Your task to perform on an android device: Open location settings Image 0: 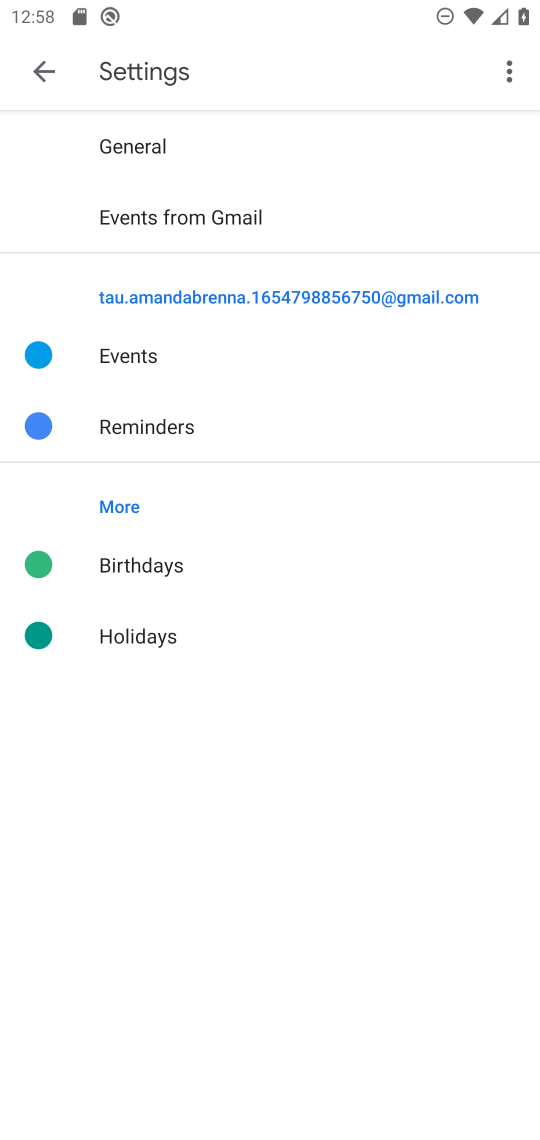
Step 0: press home button
Your task to perform on an android device: Open location settings Image 1: 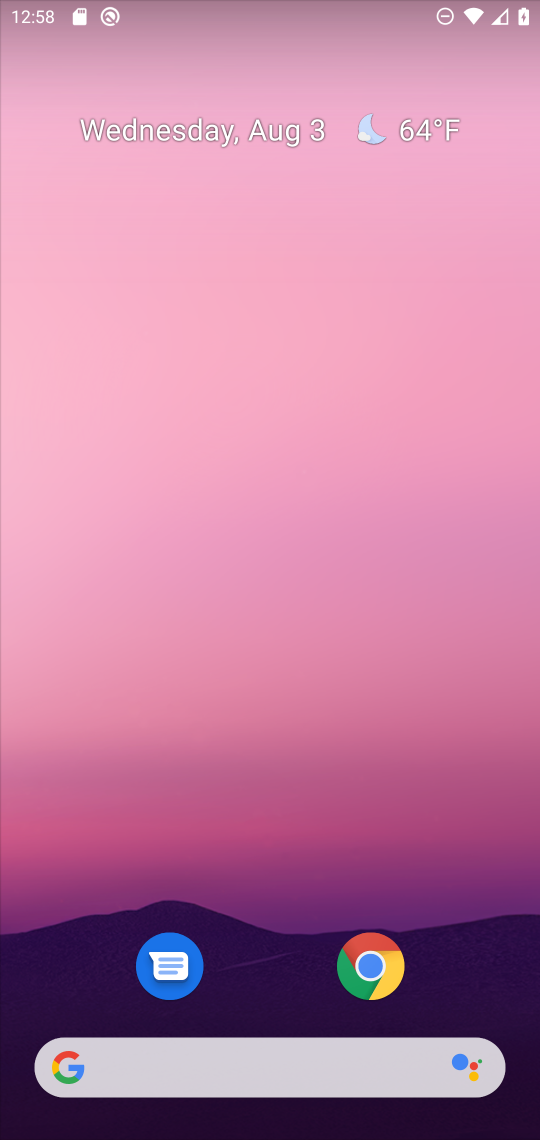
Step 1: drag from (282, 851) to (227, 72)
Your task to perform on an android device: Open location settings Image 2: 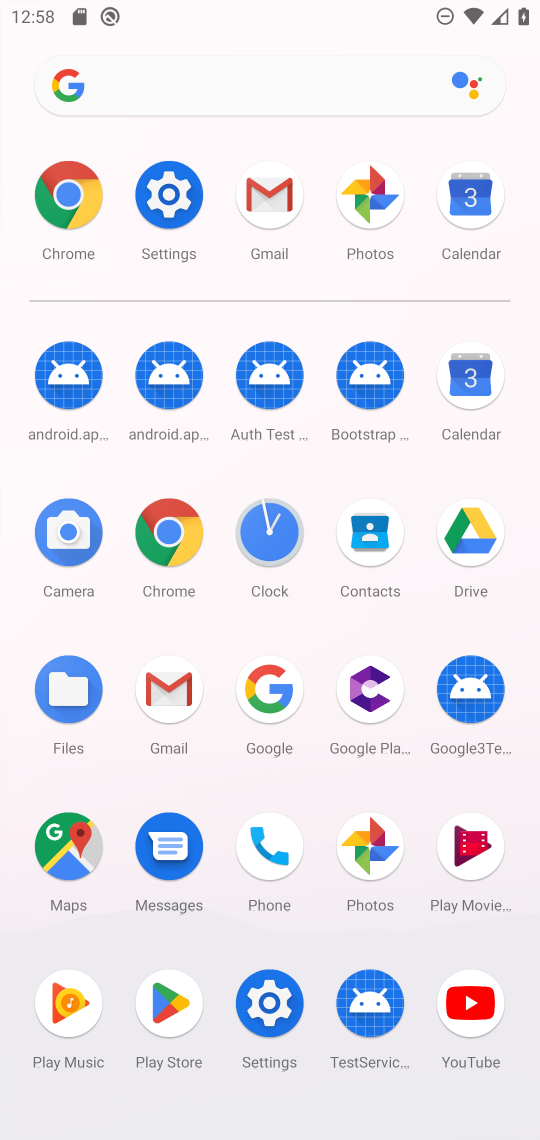
Step 2: click (149, 211)
Your task to perform on an android device: Open location settings Image 3: 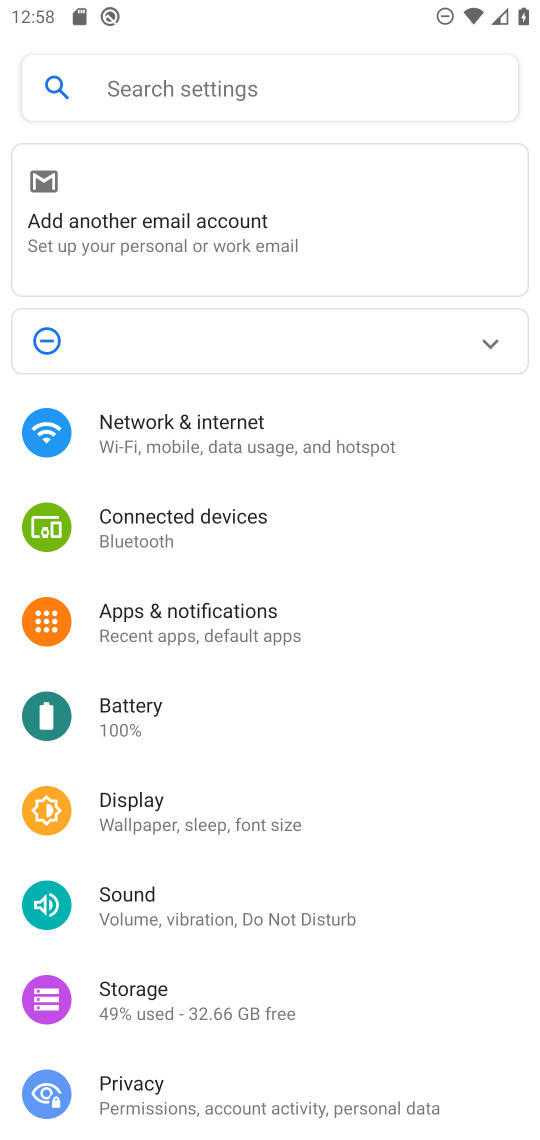
Step 3: drag from (254, 949) to (267, 455)
Your task to perform on an android device: Open location settings Image 4: 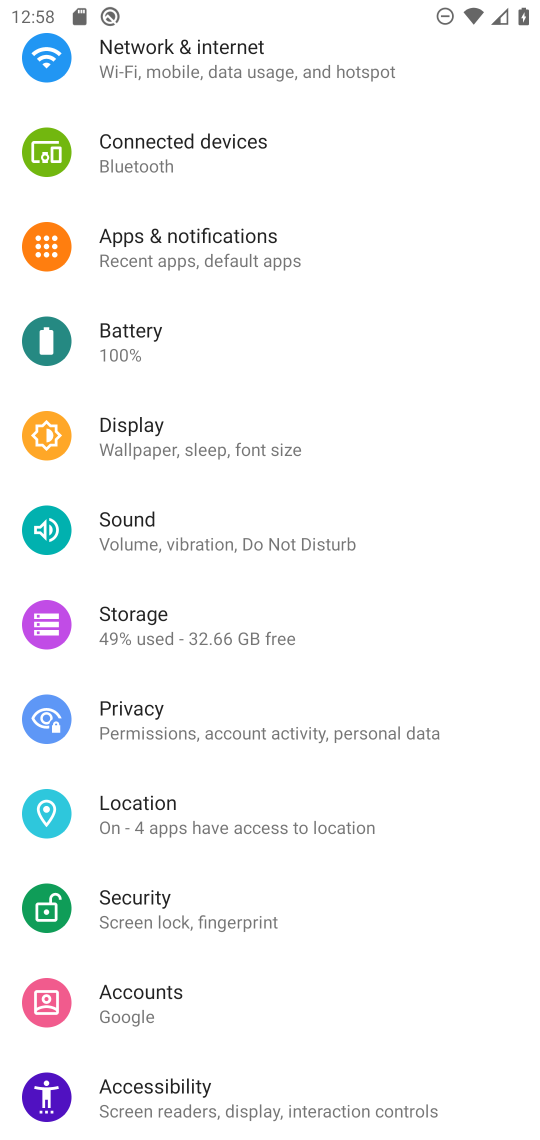
Step 4: click (228, 812)
Your task to perform on an android device: Open location settings Image 5: 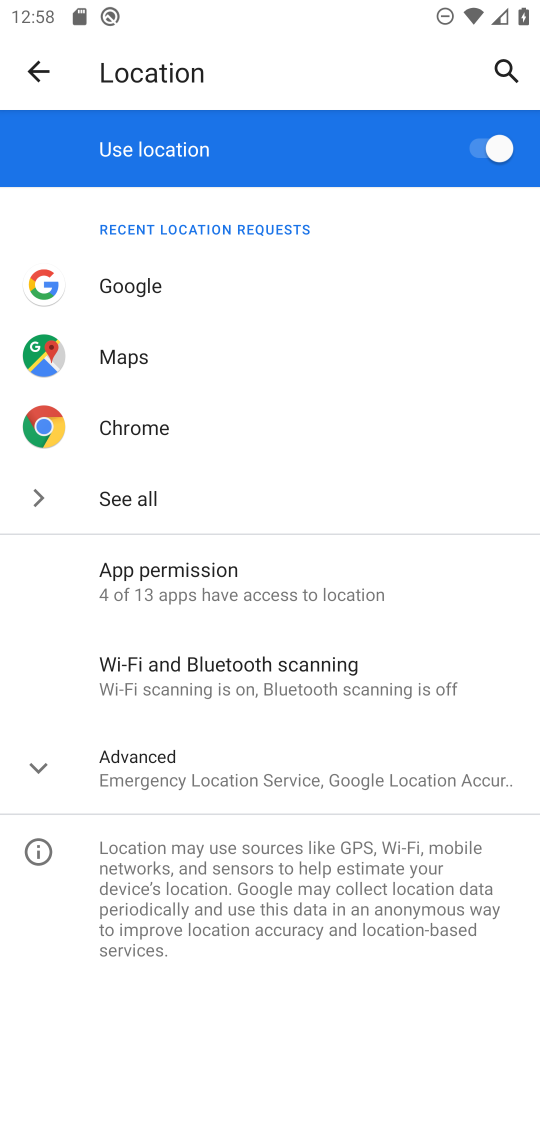
Step 5: task complete